Your task to perform on an android device: When is my next appointment? Image 0: 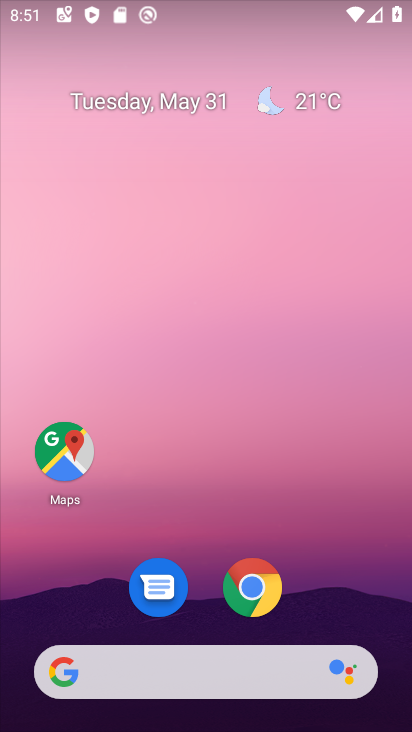
Step 0: click (166, 104)
Your task to perform on an android device: When is my next appointment? Image 1: 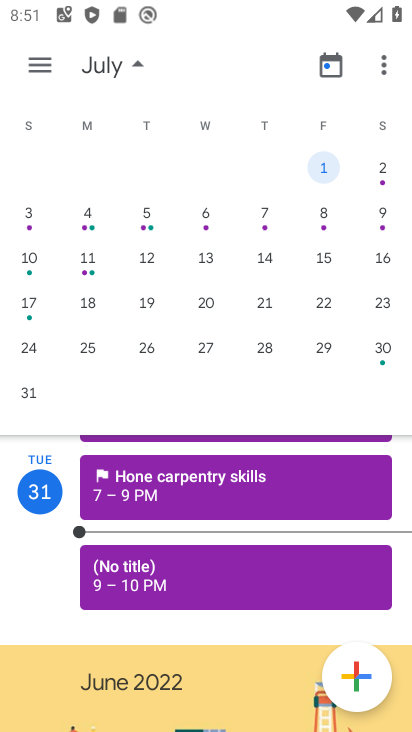
Step 1: task complete